Your task to perform on an android device: What's the weather? Image 0: 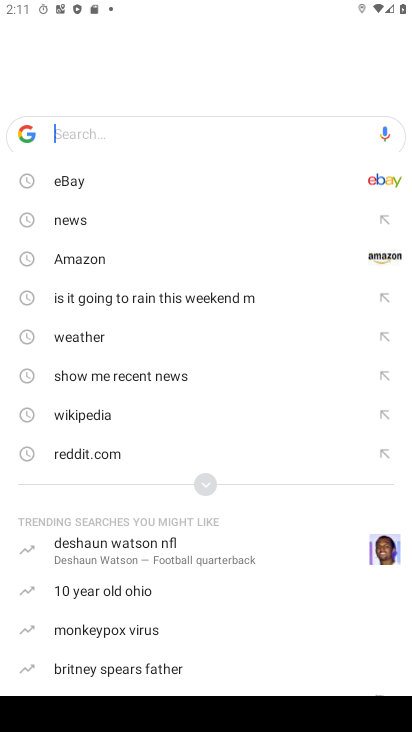
Step 0: press home button
Your task to perform on an android device: What's the weather? Image 1: 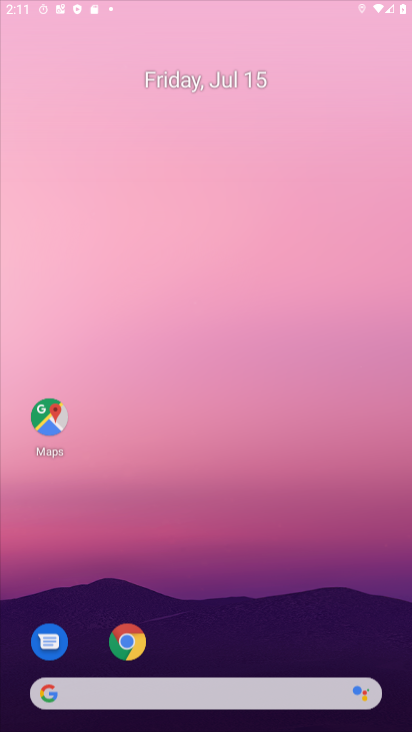
Step 1: drag from (403, 660) to (350, 19)
Your task to perform on an android device: What's the weather? Image 2: 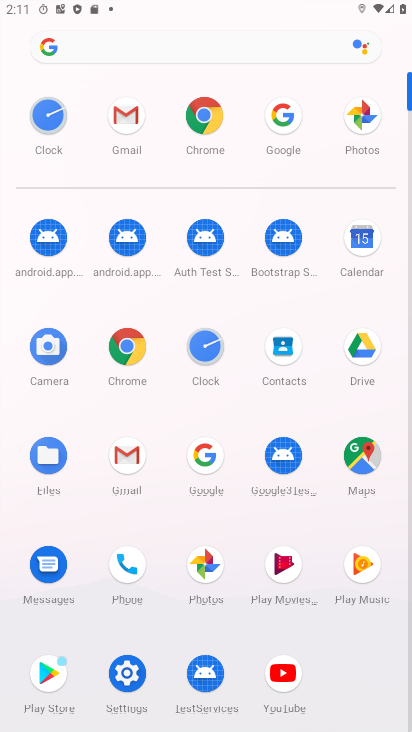
Step 2: click (290, 101)
Your task to perform on an android device: What's the weather? Image 3: 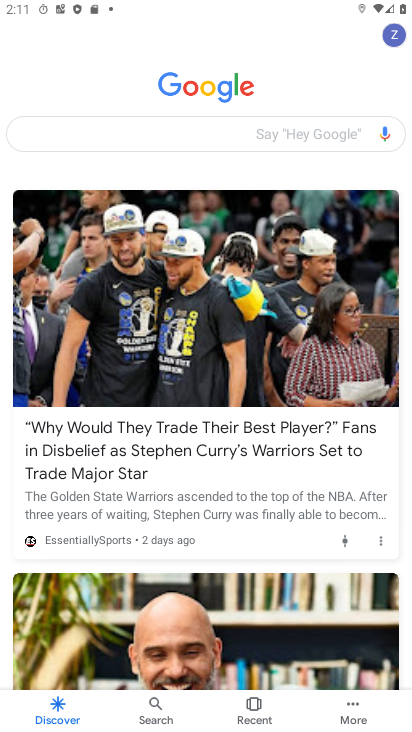
Step 3: click (135, 137)
Your task to perform on an android device: What's the weather? Image 4: 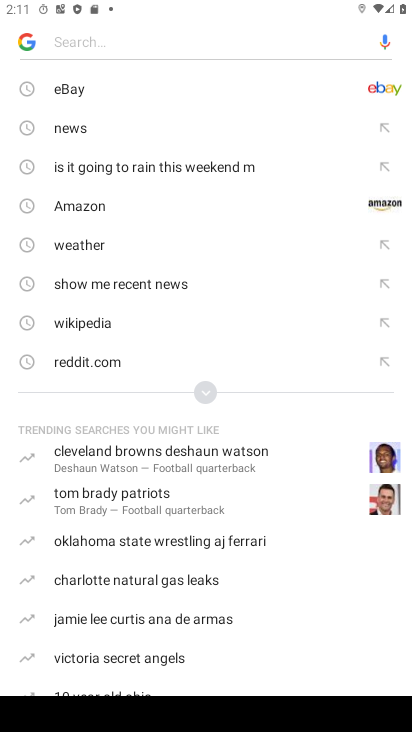
Step 4: click (99, 234)
Your task to perform on an android device: What's the weather? Image 5: 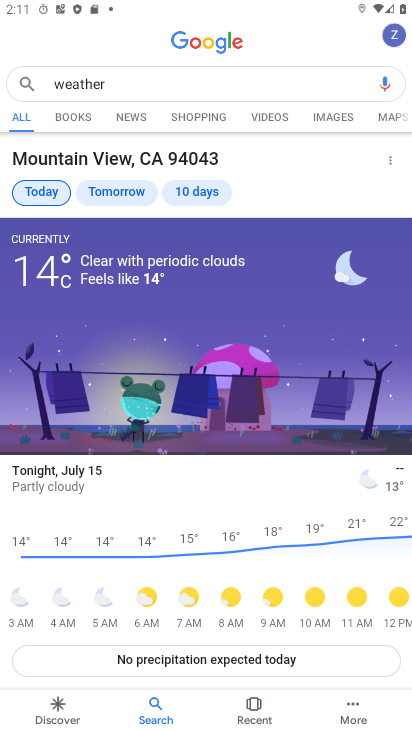
Step 5: task complete